Your task to perform on an android device: clear all cookies in the chrome app Image 0: 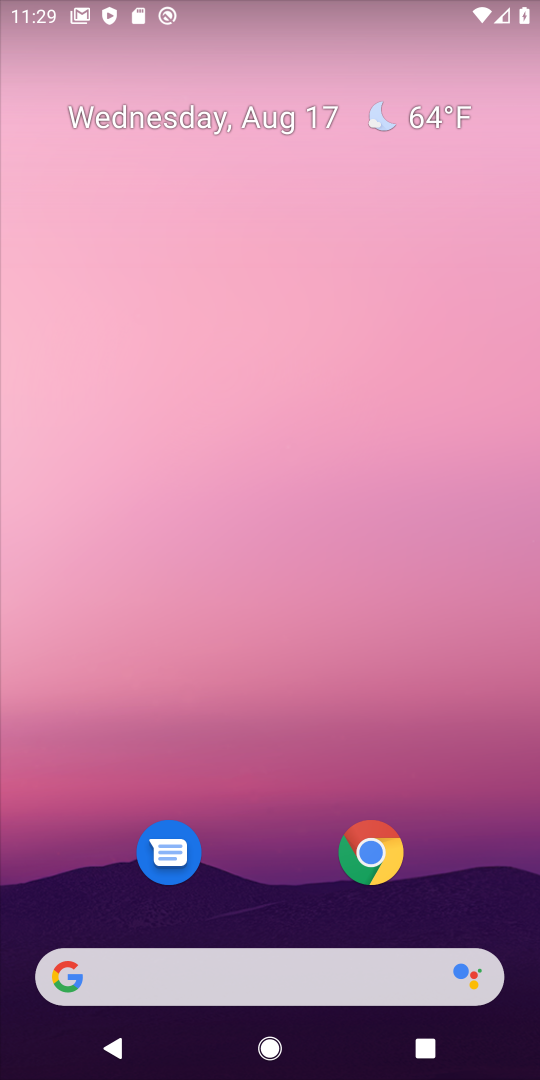
Step 0: drag from (270, 796) to (421, 80)
Your task to perform on an android device: clear all cookies in the chrome app Image 1: 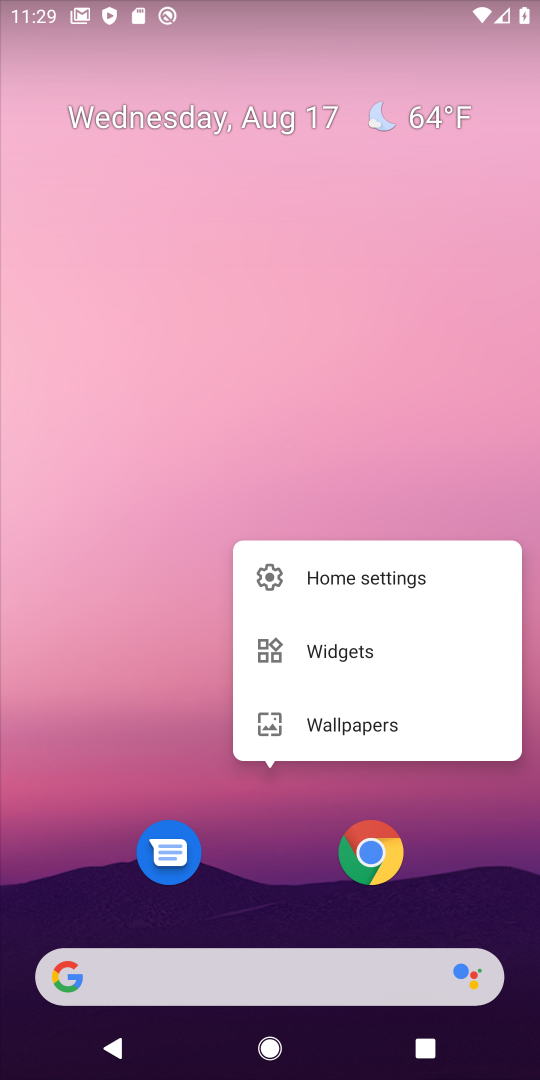
Step 1: click (183, 641)
Your task to perform on an android device: clear all cookies in the chrome app Image 2: 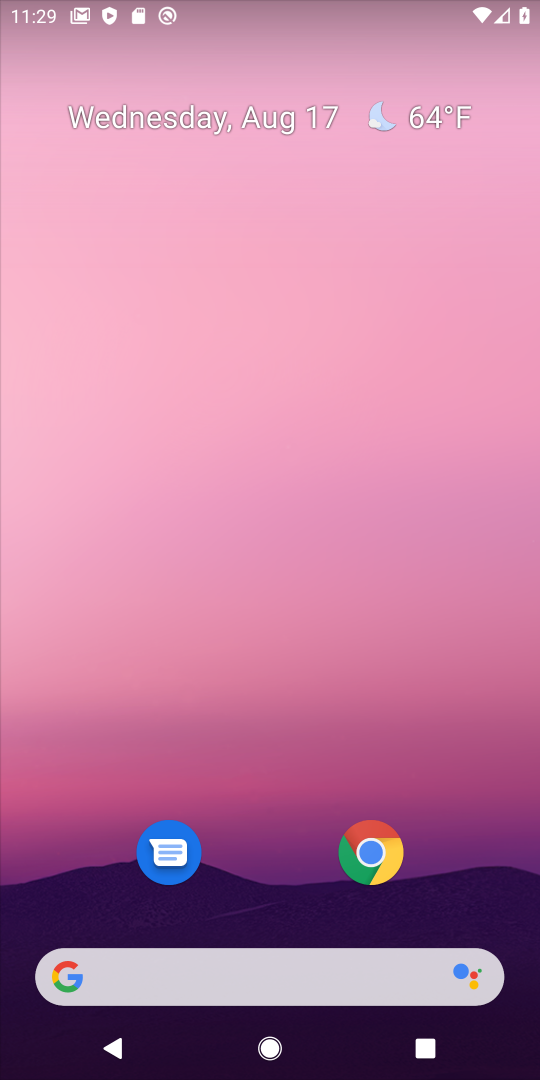
Step 2: drag from (204, 733) to (312, 312)
Your task to perform on an android device: clear all cookies in the chrome app Image 3: 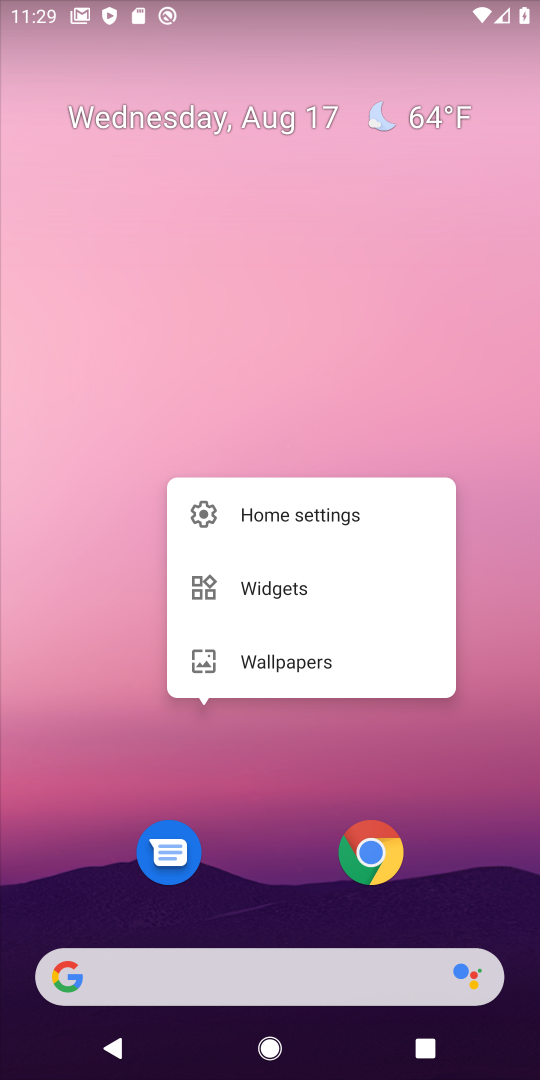
Step 3: click (86, 496)
Your task to perform on an android device: clear all cookies in the chrome app Image 4: 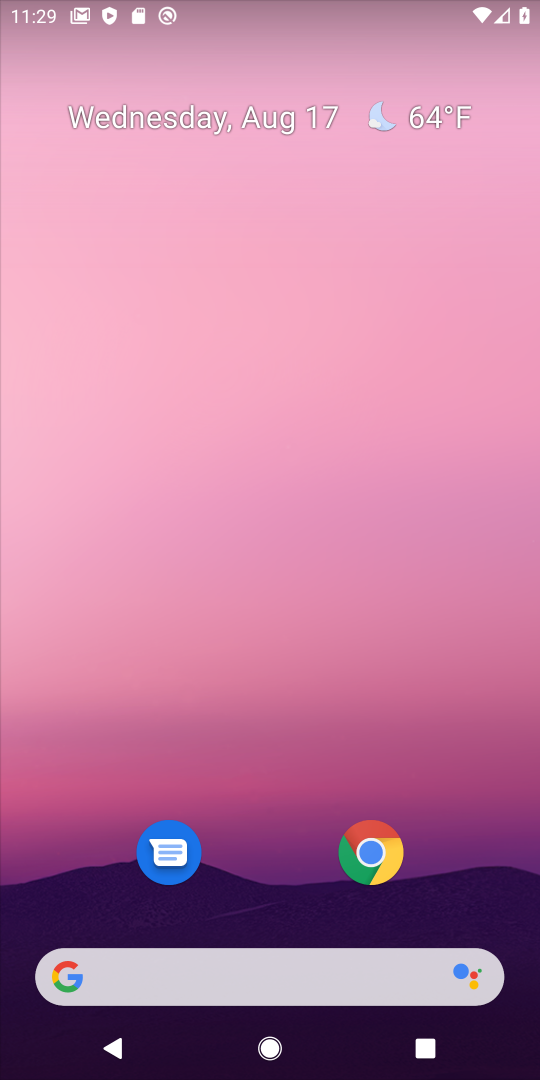
Step 4: task complete